Your task to perform on an android device: open app "Microsoft Excel" (install if not already installed) Image 0: 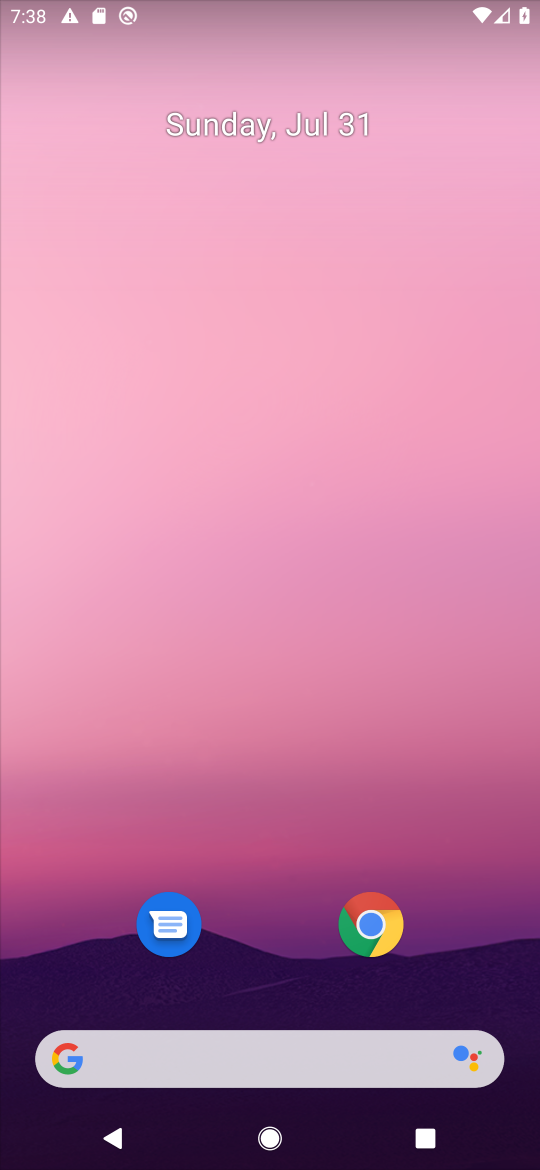
Step 0: click (154, 454)
Your task to perform on an android device: open app "Microsoft Excel" (install if not already installed) Image 1: 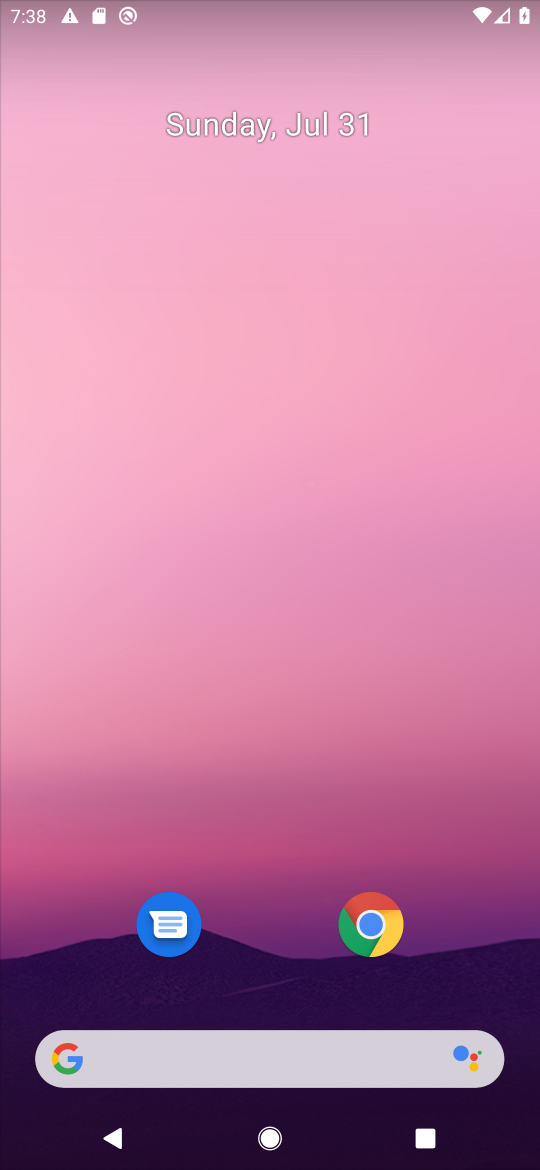
Step 1: drag from (244, 887) to (197, 295)
Your task to perform on an android device: open app "Microsoft Excel" (install if not already installed) Image 2: 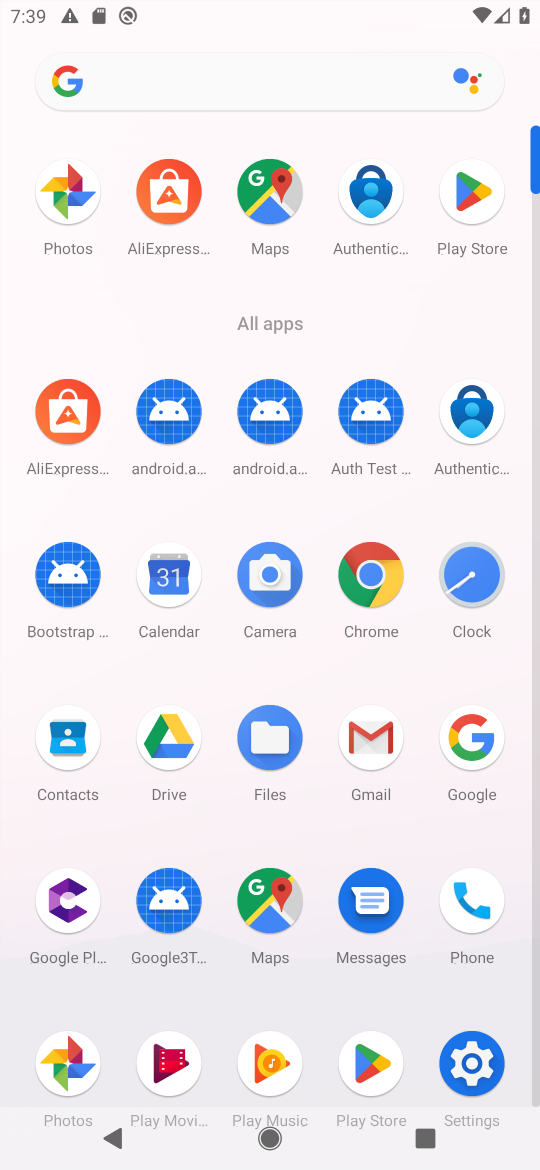
Step 2: click (455, 191)
Your task to perform on an android device: open app "Microsoft Excel" (install if not already installed) Image 3: 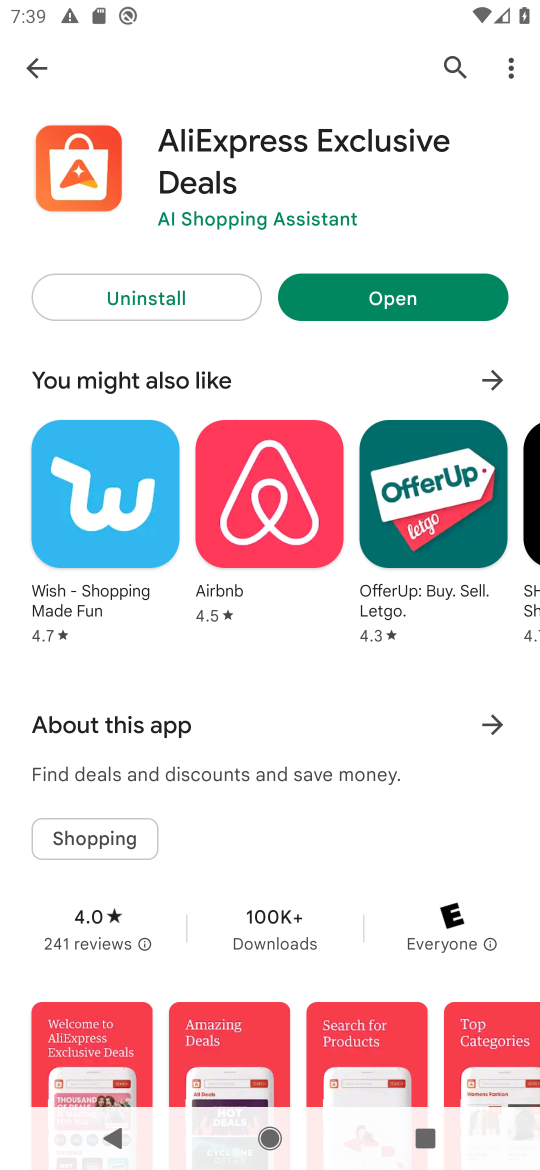
Step 3: click (21, 71)
Your task to perform on an android device: open app "Microsoft Excel" (install if not already installed) Image 4: 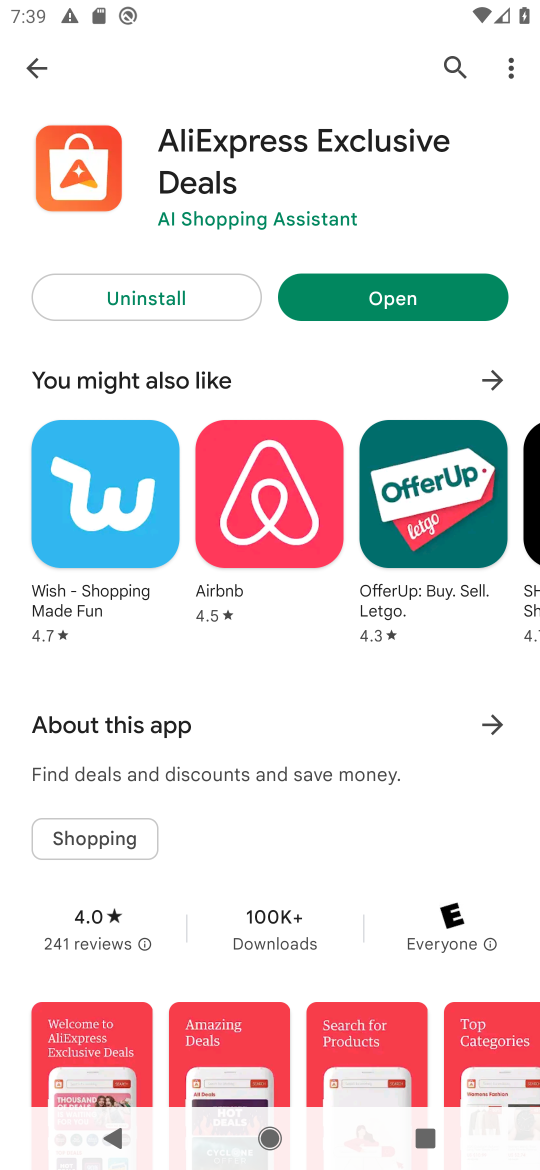
Step 4: click (31, 66)
Your task to perform on an android device: open app "Microsoft Excel" (install if not already installed) Image 5: 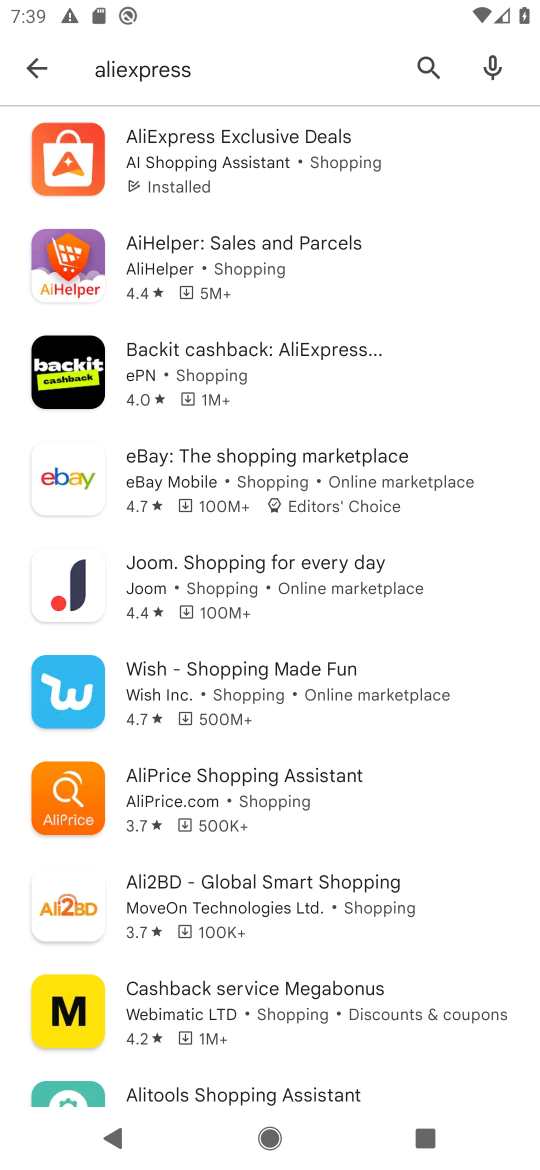
Step 5: click (41, 55)
Your task to perform on an android device: open app "Microsoft Excel" (install if not already installed) Image 6: 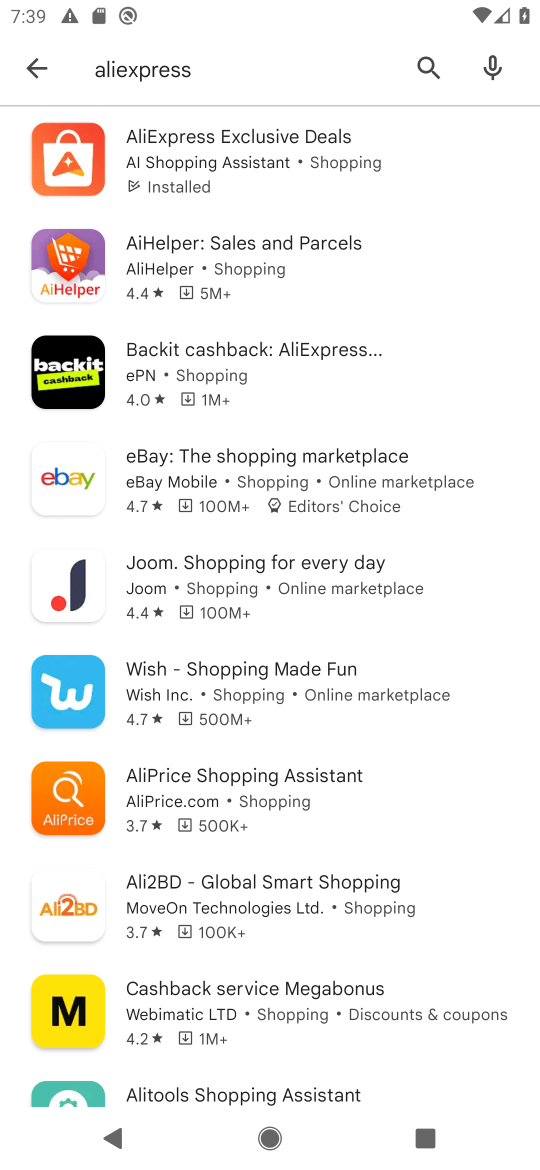
Step 6: click (39, 66)
Your task to perform on an android device: open app "Microsoft Excel" (install if not already installed) Image 7: 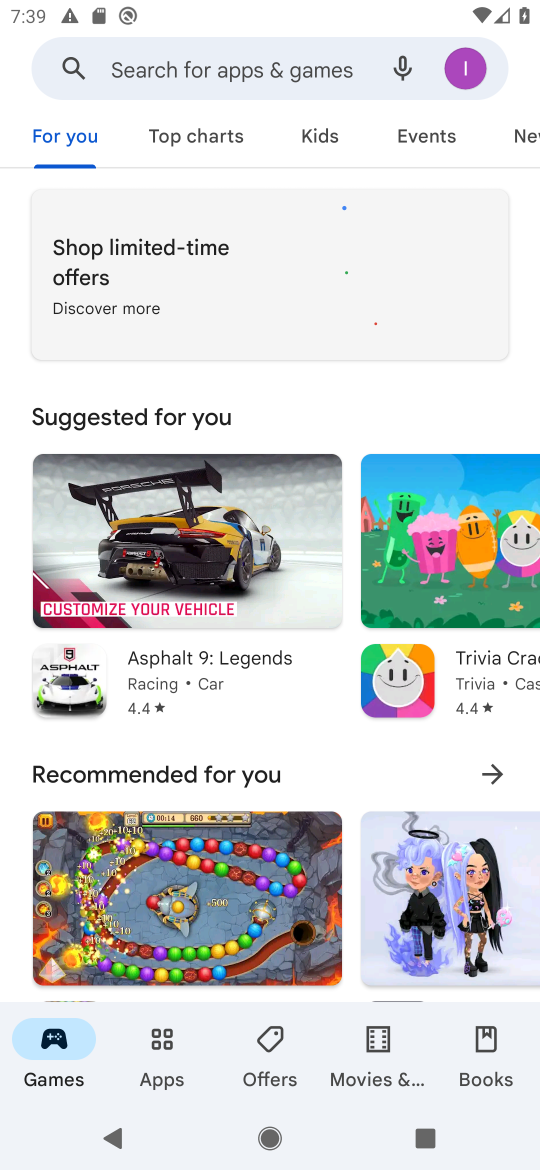
Step 7: click (208, 63)
Your task to perform on an android device: open app "Microsoft Excel" (install if not already installed) Image 8: 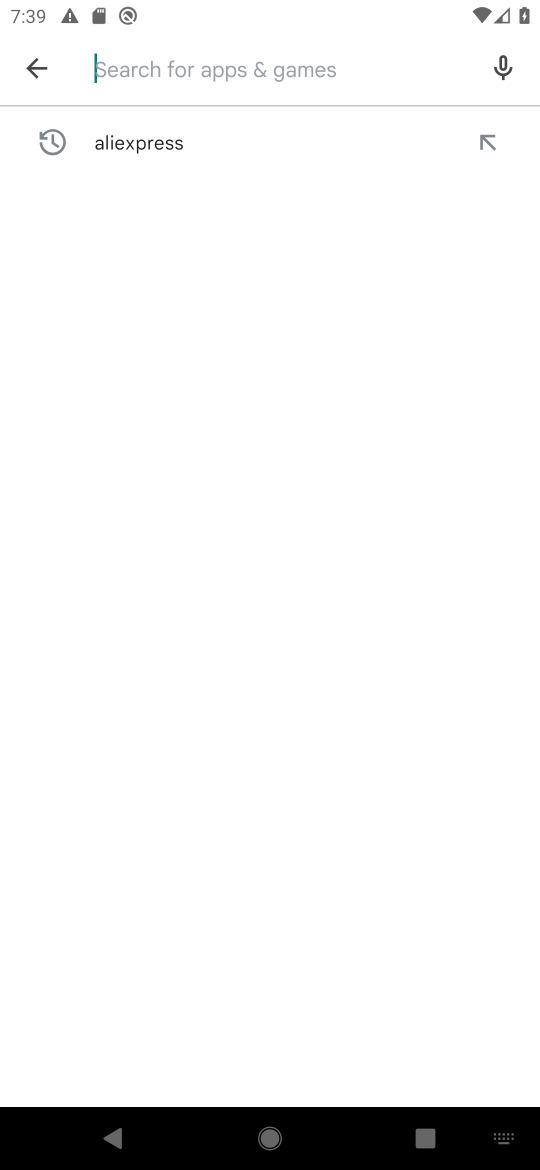
Step 8: type "Microsoft Excel"
Your task to perform on an android device: open app "Microsoft Excel" (install if not already installed) Image 9: 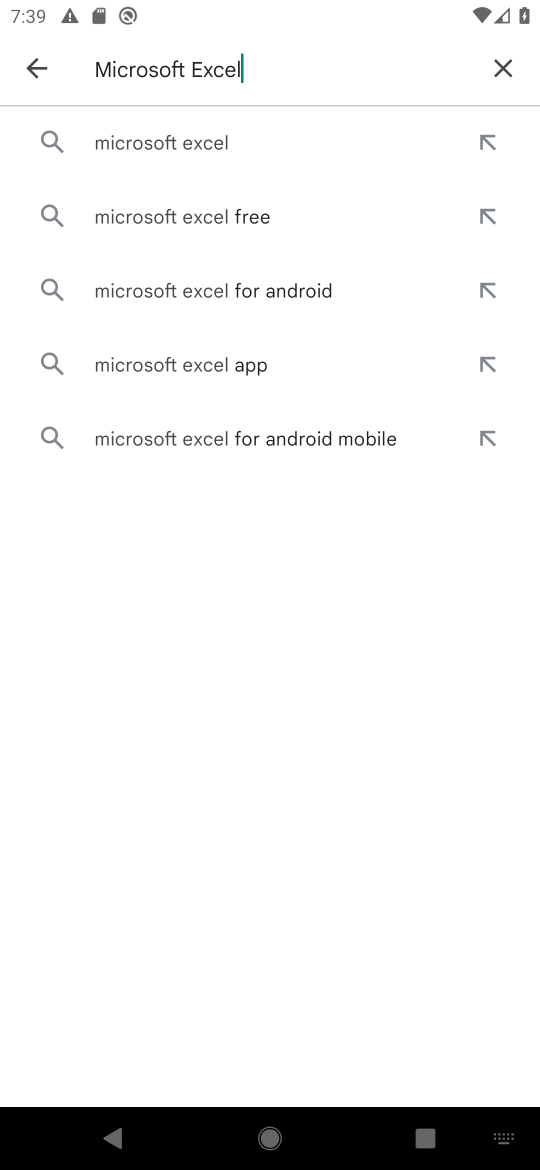
Step 9: click (160, 139)
Your task to perform on an android device: open app "Microsoft Excel" (install if not already installed) Image 10: 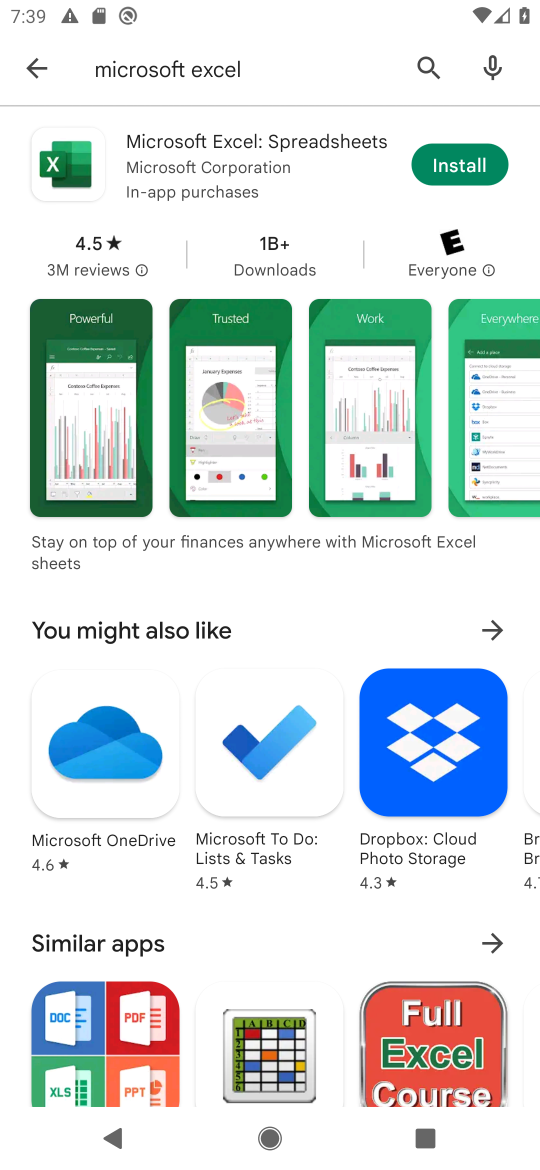
Step 10: click (456, 153)
Your task to perform on an android device: open app "Microsoft Excel" (install if not already installed) Image 11: 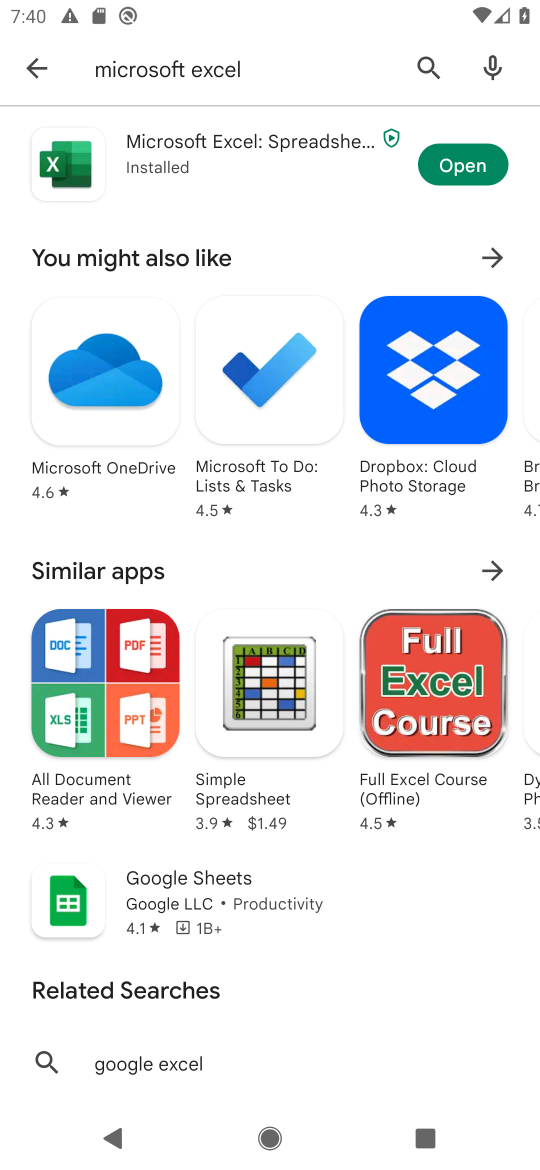
Step 11: click (498, 156)
Your task to perform on an android device: open app "Microsoft Excel" (install if not already installed) Image 12: 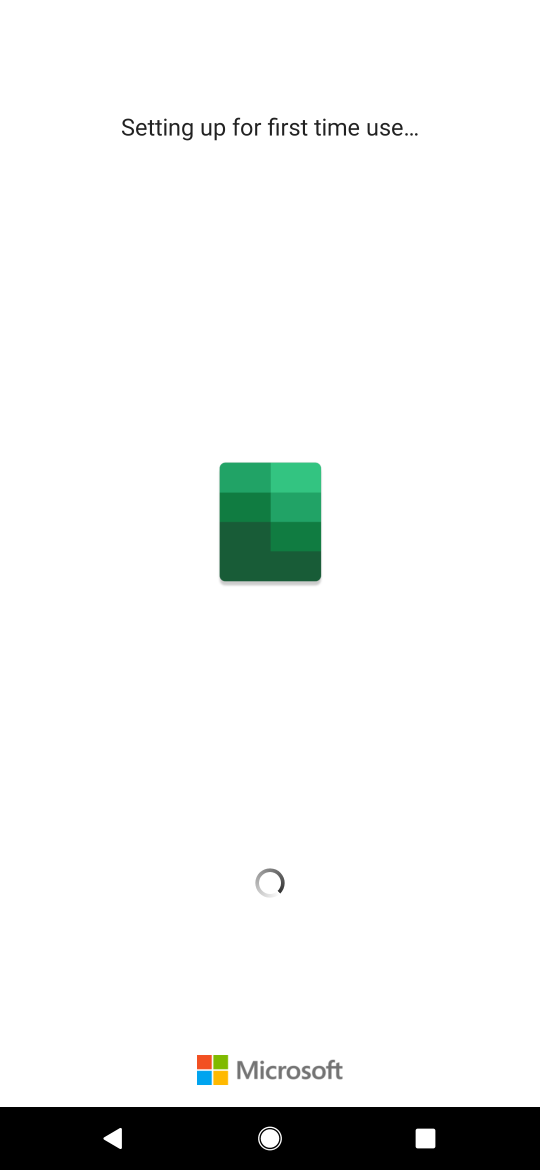
Step 12: task complete